Your task to perform on an android device: Do I have any events today? Image 0: 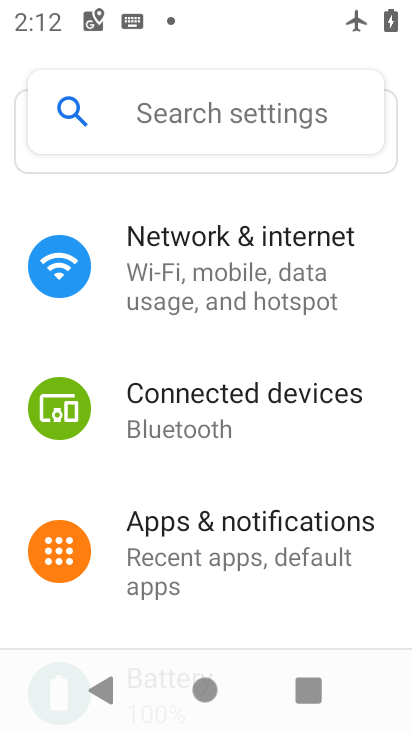
Step 0: click (261, 275)
Your task to perform on an android device: Do I have any events today? Image 1: 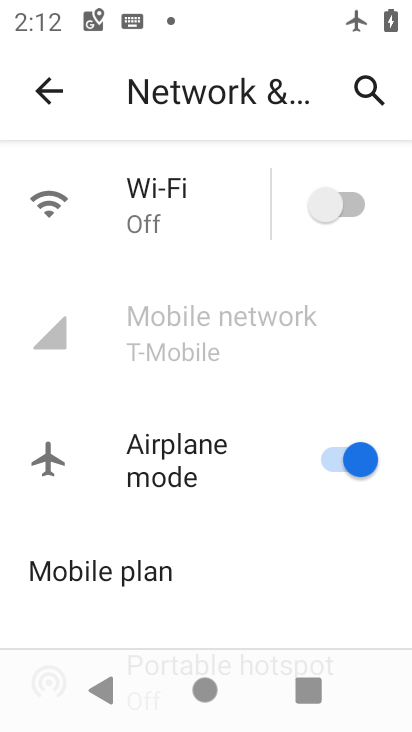
Step 1: click (355, 456)
Your task to perform on an android device: Do I have any events today? Image 2: 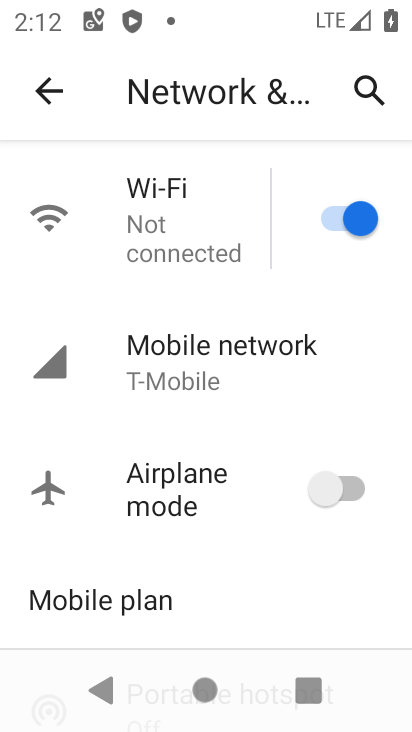
Step 2: press home button
Your task to perform on an android device: Do I have any events today? Image 3: 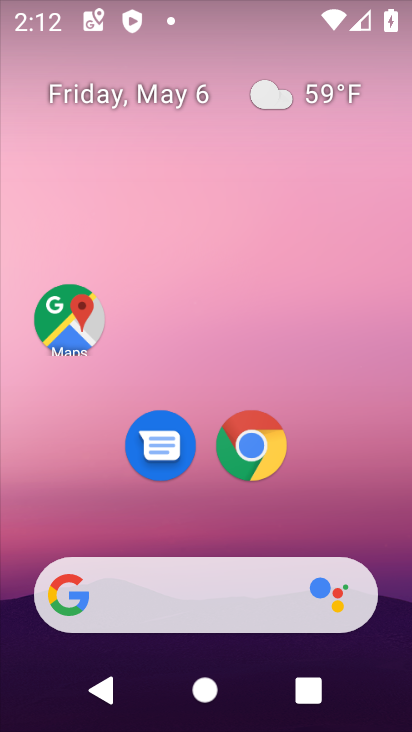
Step 3: drag from (334, 533) to (124, 60)
Your task to perform on an android device: Do I have any events today? Image 4: 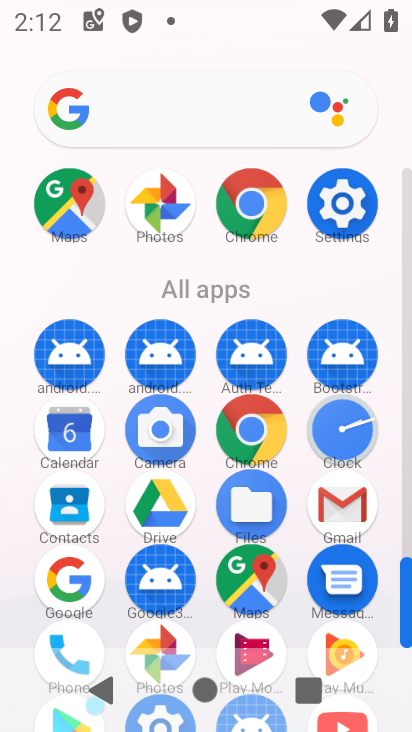
Step 4: click (57, 431)
Your task to perform on an android device: Do I have any events today? Image 5: 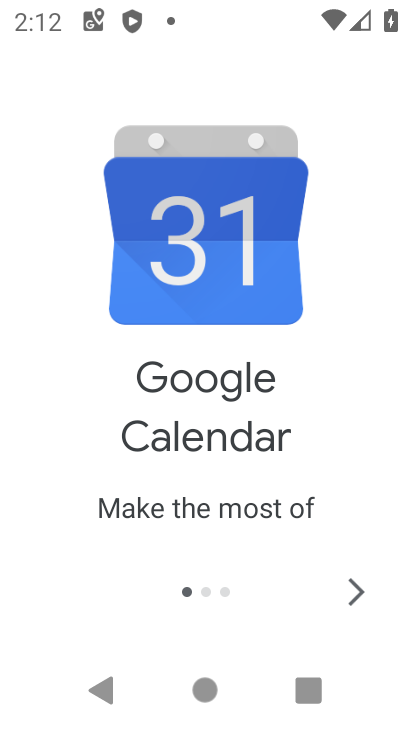
Step 5: click (357, 585)
Your task to perform on an android device: Do I have any events today? Image 6: 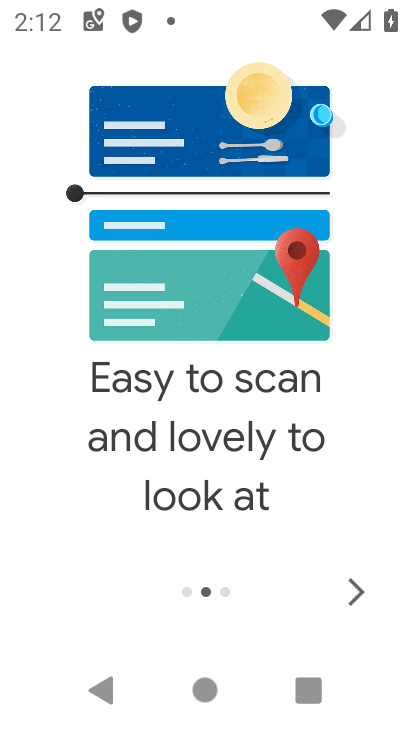
Step 6: click (357, 585)
Your task to perform on an android device: Do I have any events today? Image 7: 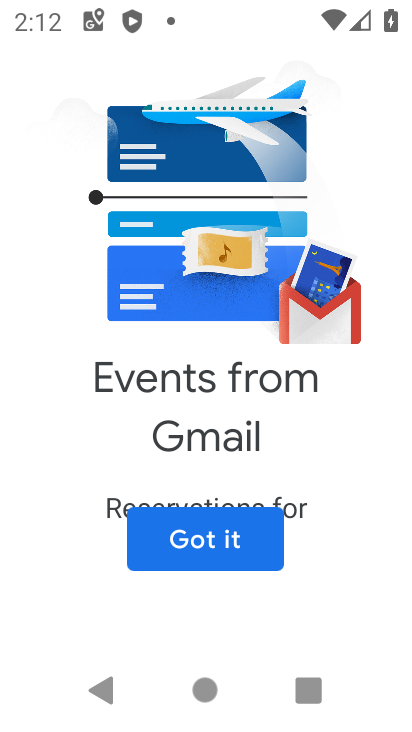
Step 7: click (189, 534)
Your task to perform on an android device: Do I have any events today? Image 8: 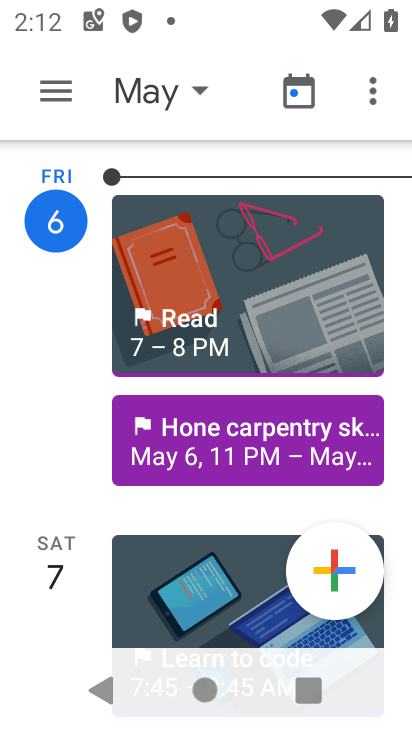
Step 8: task complete